Your task to perform on an android device: remove spam from my inbox in the gmail app Image 0: 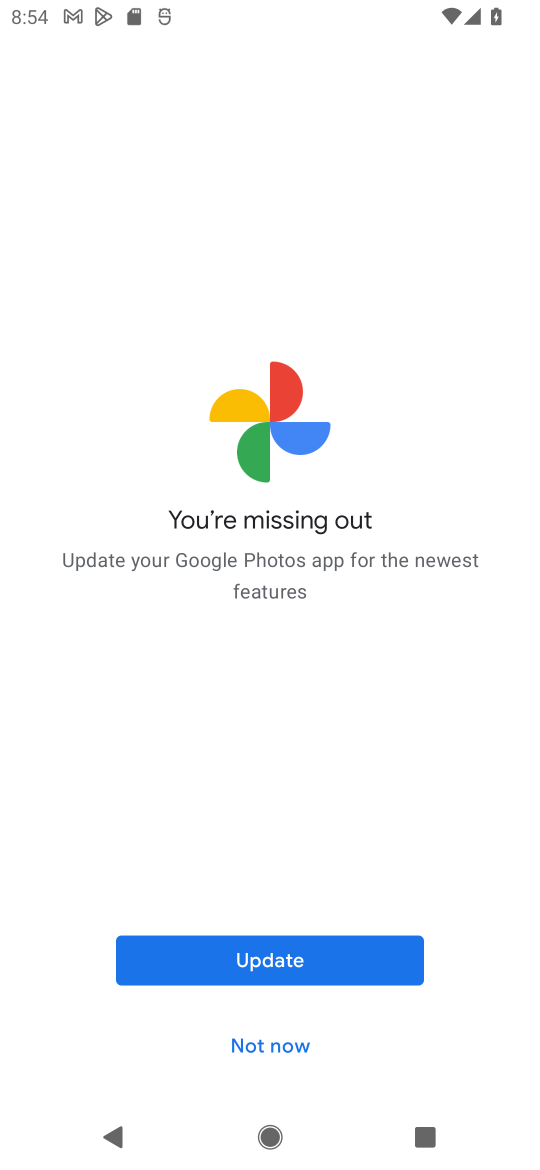
Step 0: press home button
Your task to perform on an android device: remove spam from my inbox in the gmail app Image 1: 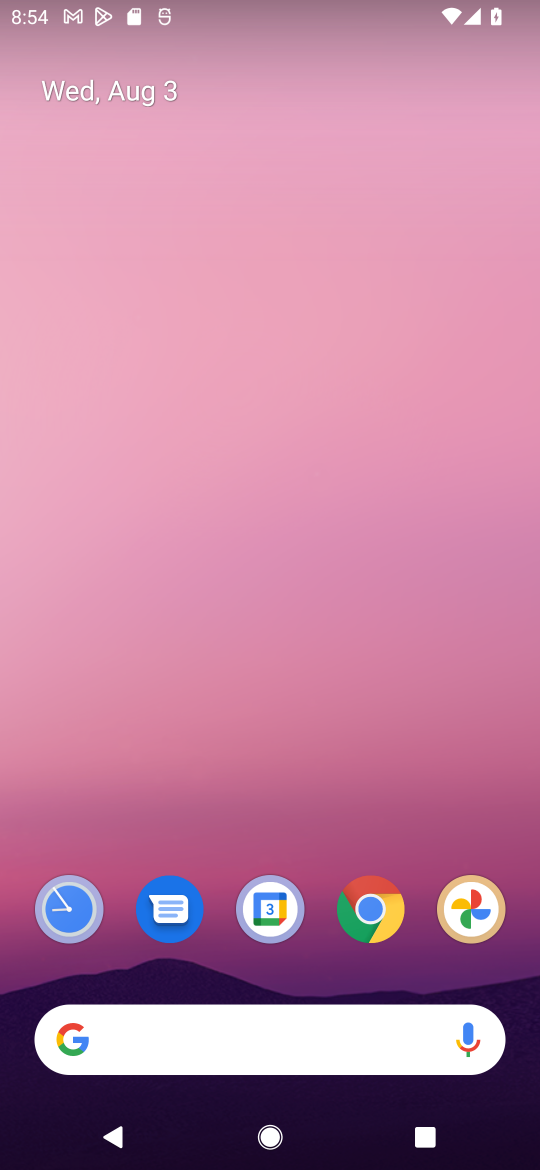
Step 1: drag from (320, 781) to (323, 229)
Your task to perform on an android device: remove spam from my inbox in the gmail app Image 2: 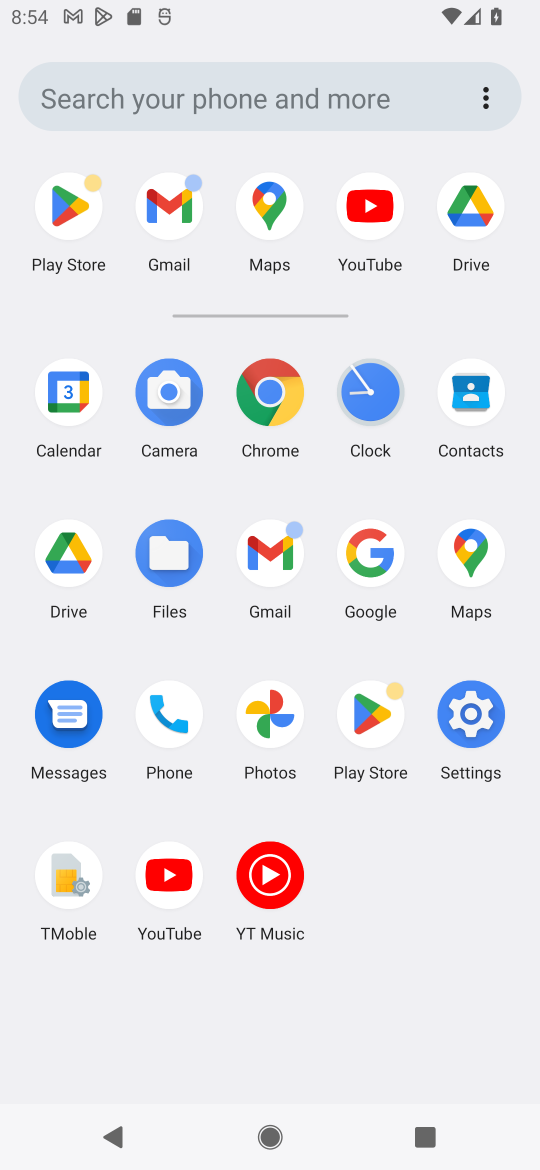
Step 2: click (275, 565)
Your task to perform on an android device: remove spam from my inbox in the gmail app Image 3: 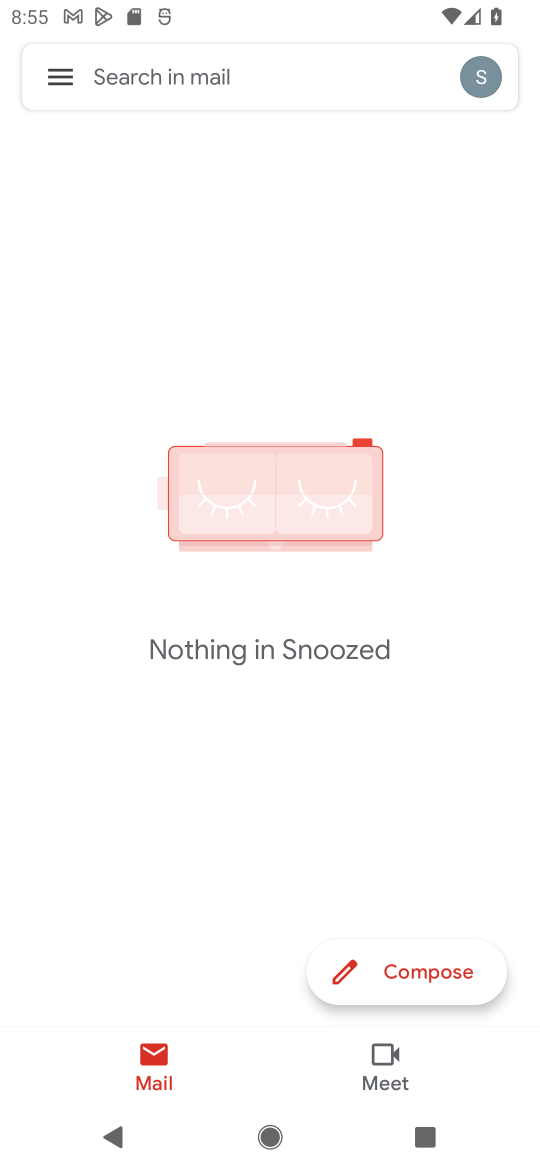
Step 3: click (62, 73)
Your task to perform on an android device: remove spam from my inbox in the gmail app Image 4: 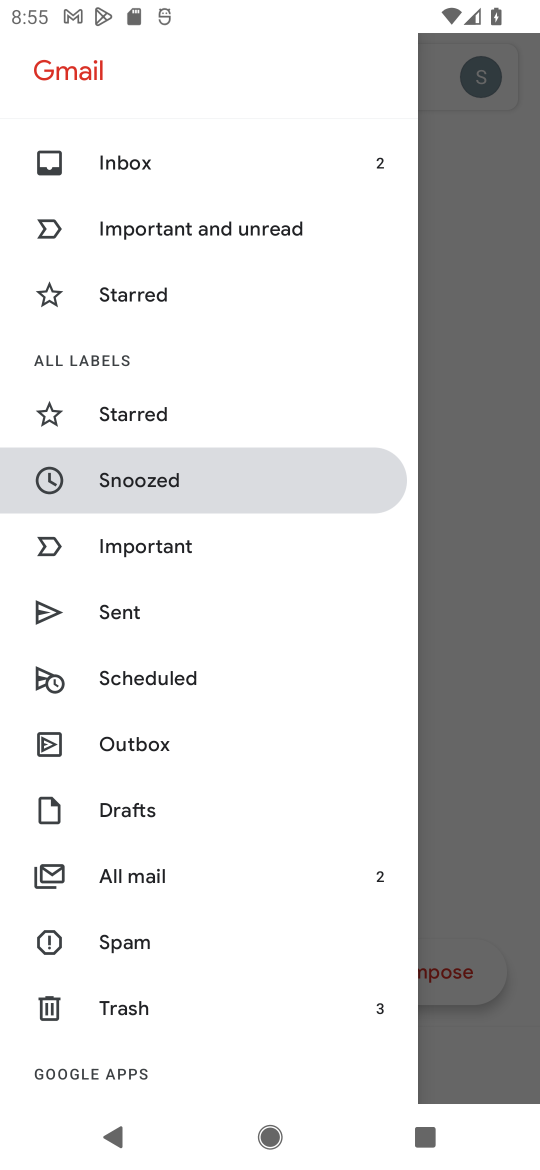
Step 4: drag from (335, 670) to (335, 531)
Your task to perform on an android device: remove spam from my inbox in the gmail app Image 5: 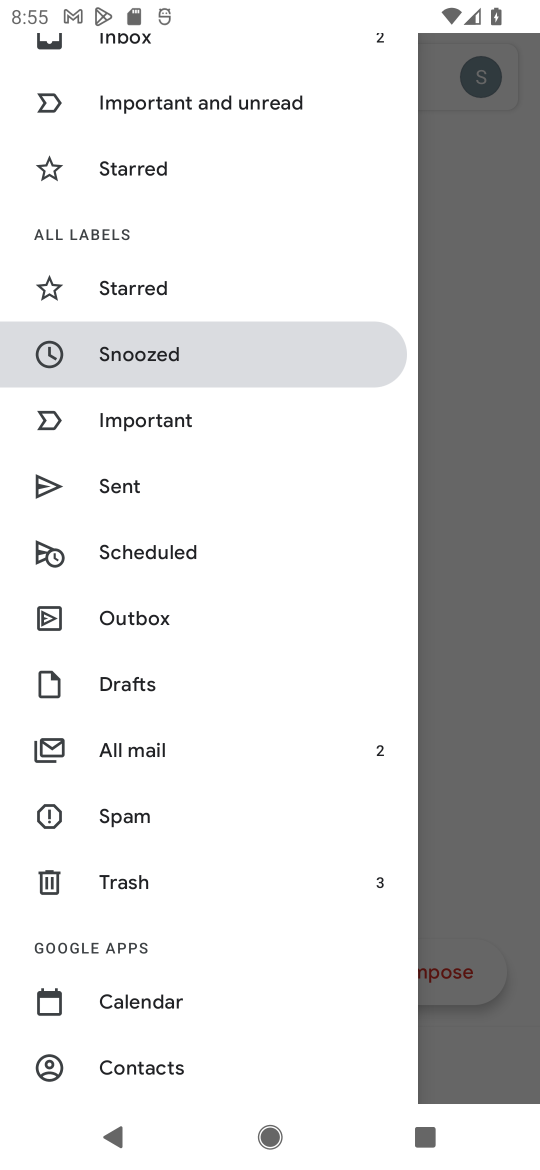
Step 5: click (141, 818)
Your task to perform on an android device: remove spam from my inbox in the gmail app Image 6: 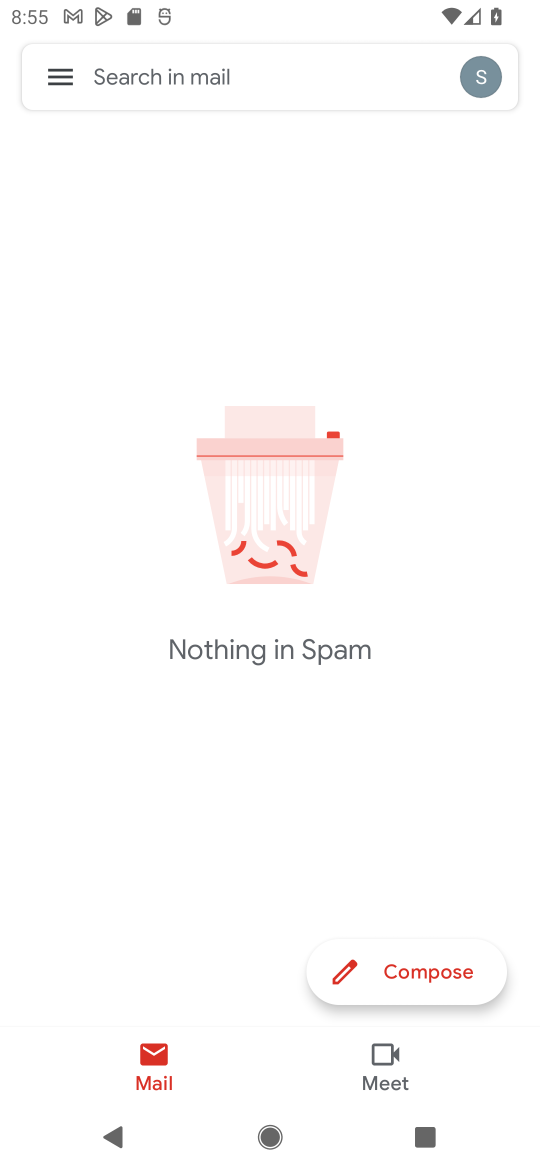
Step 6: task complete